Your task to perform on an android device: open the mobile data screen to see how much data has been used Image 0: 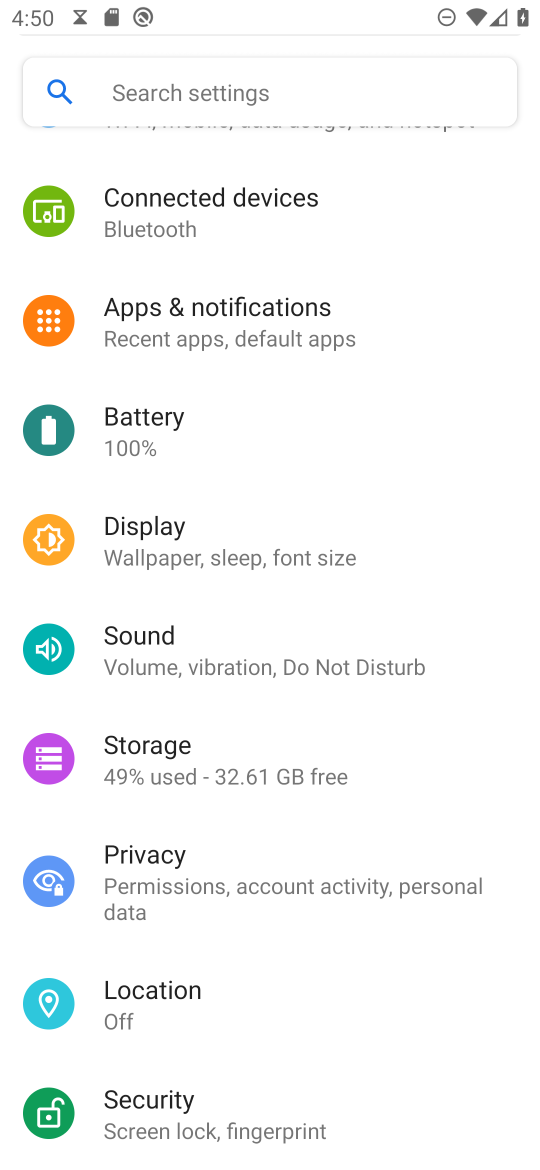
Step 0: press home button
Your task to perform on an android device: open the mobile data screen to see how much data has been used Image 1: 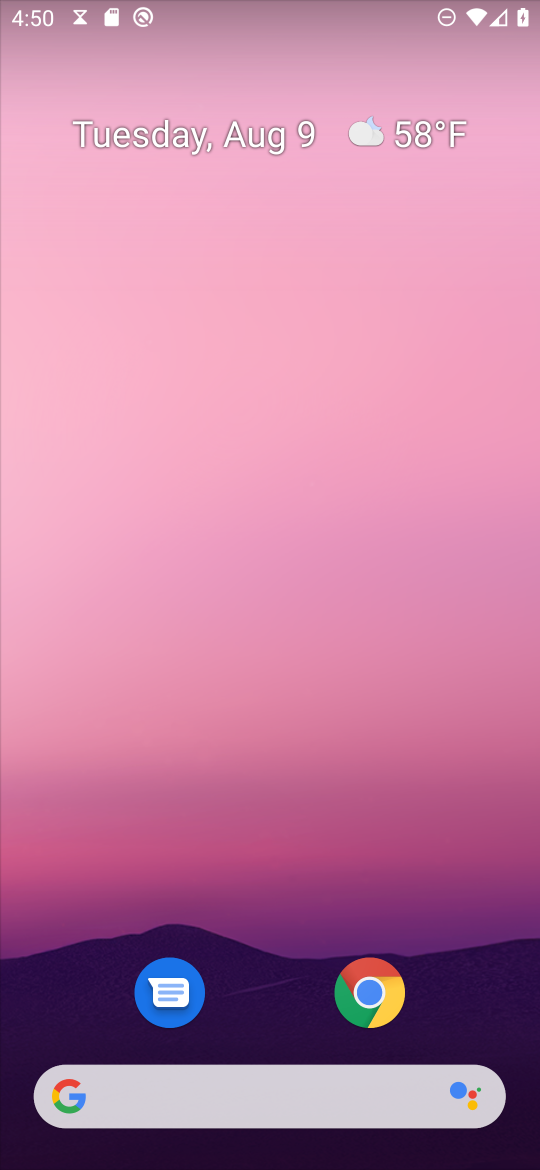
Step 1: drag from (279, 1089) to (248, 110)
Your task to perform on an android device: open the mobile data screen to see how much data has been used Image 2: 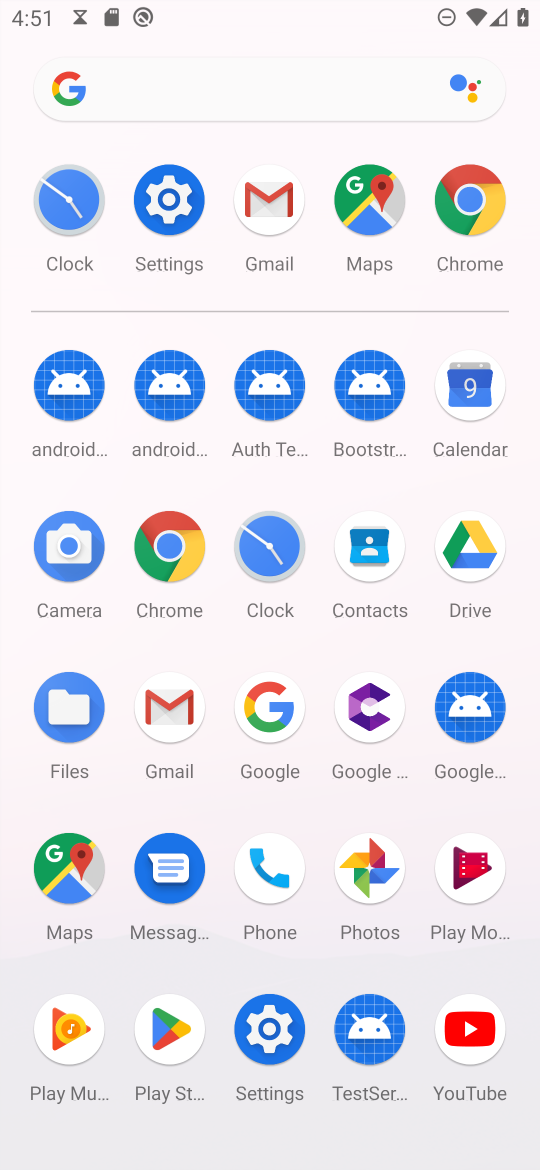
Step 2: click (182, 199)
Your task to perform on an android device: open the mobile data screen to see how much data has been used Image 3: 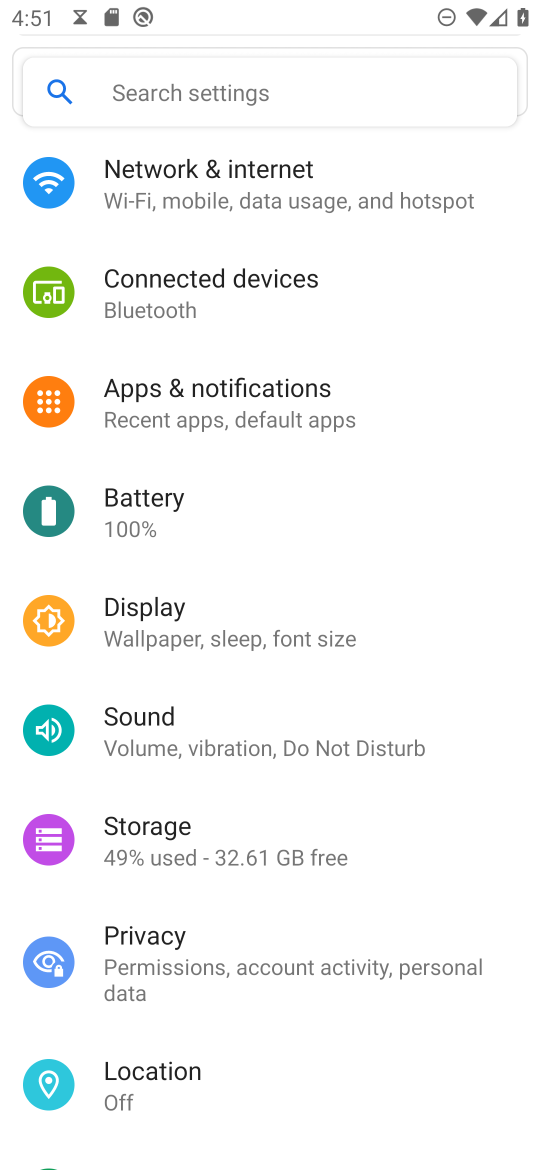
Step 3: click (267, 163)
Your task to perform on an android device: open the mobile data screen to see how much data has been used Image 4: 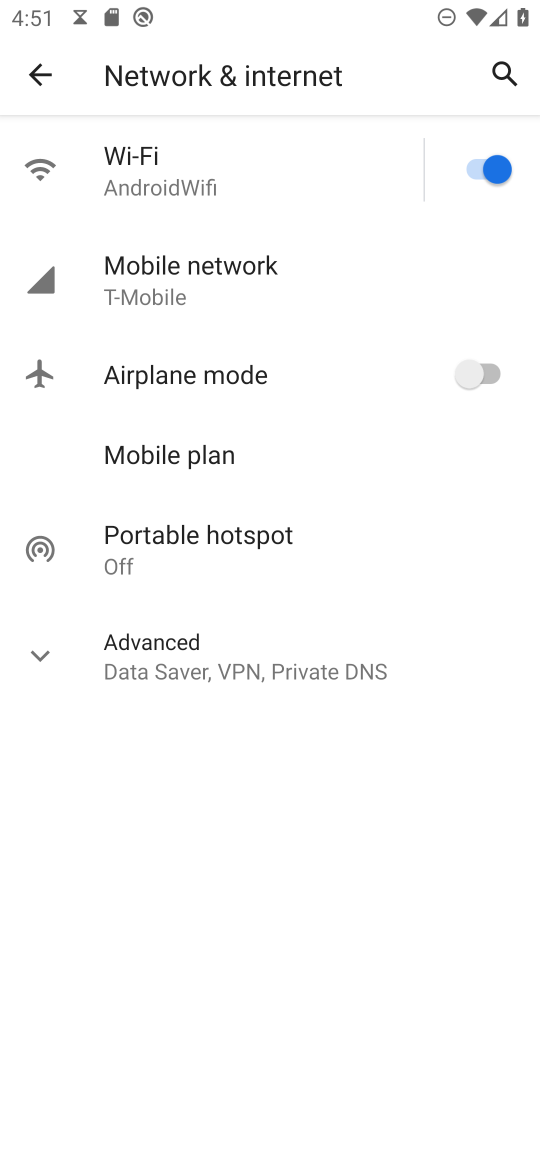
Step 4: task complete